Your task to perform on an android device: open app "Google Home" (install if not already installed) Image 0: 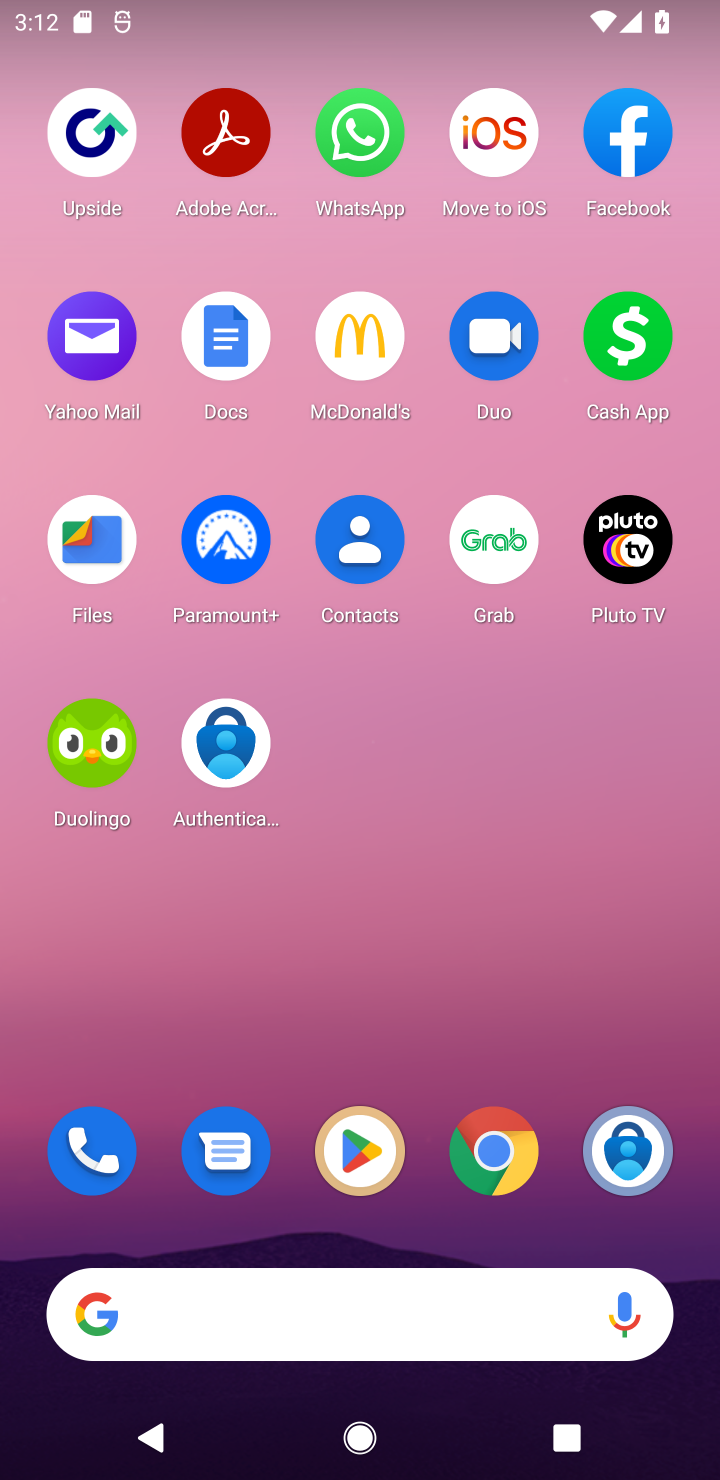
Step 0: click (363, 1164)
Your task to perform on an android device: open app "Google Home" (install if not already installed) Image 1: 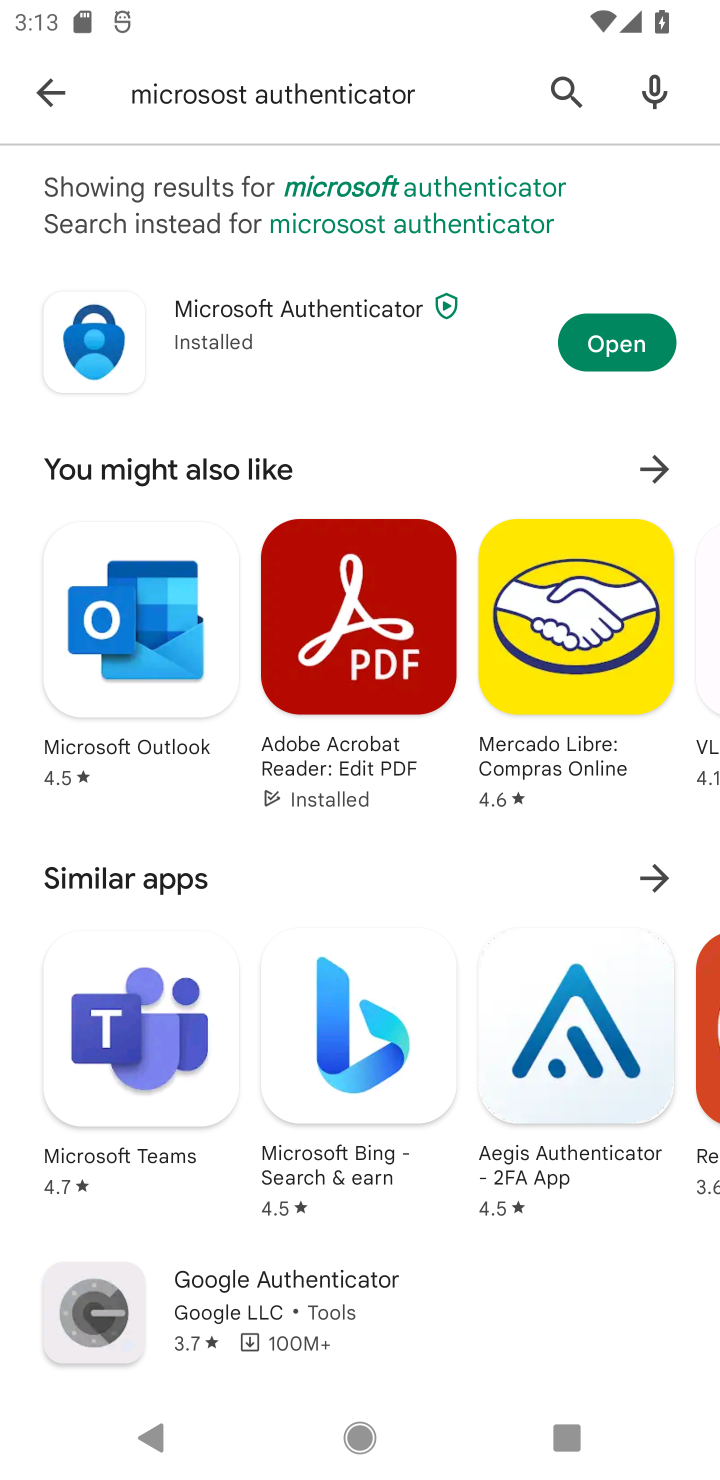
Step 1: click (565, 96)
Your task to perform on an android device: open app "Google Home" (install if not already installed) Image 2: 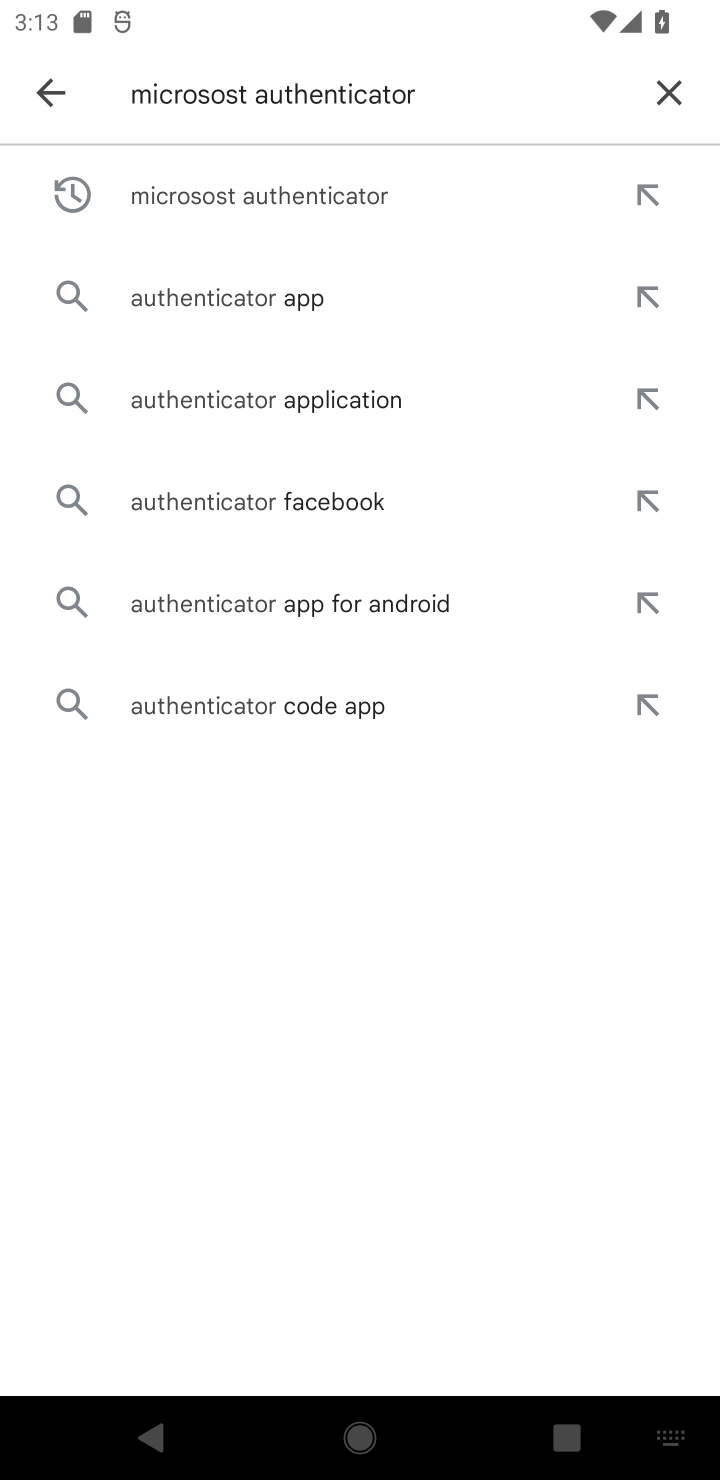
Step 2: click (651, 83)
Your task to perform on an android device: open app "Google Home" (install if not already installed) Image 3: 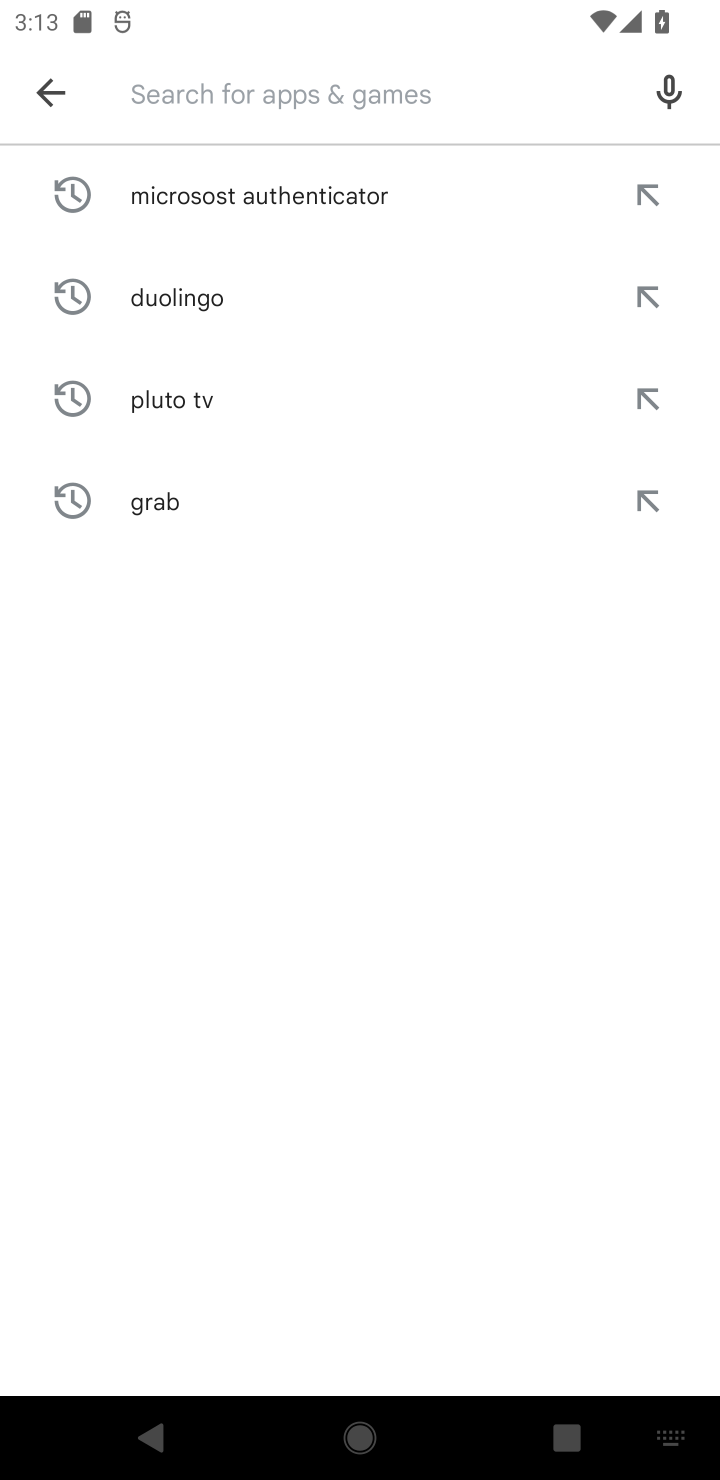
Step 3: type "google home"
Your task to perform on an android device: open app "Google Home" (install if not already installed) Image 4: 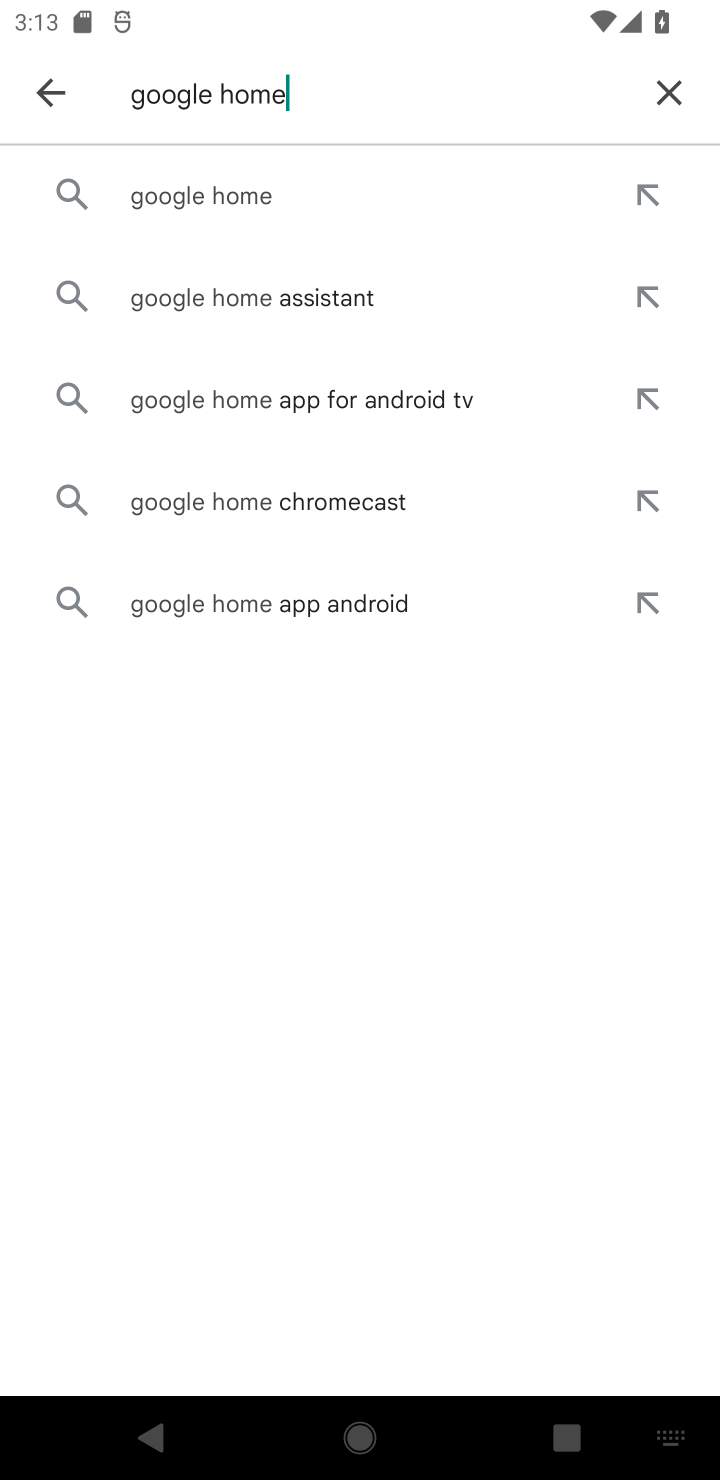
Step 4: click (301, 170)
Your task to perform on an android device: open app "Google Home" (install if not already installed) Image 5: 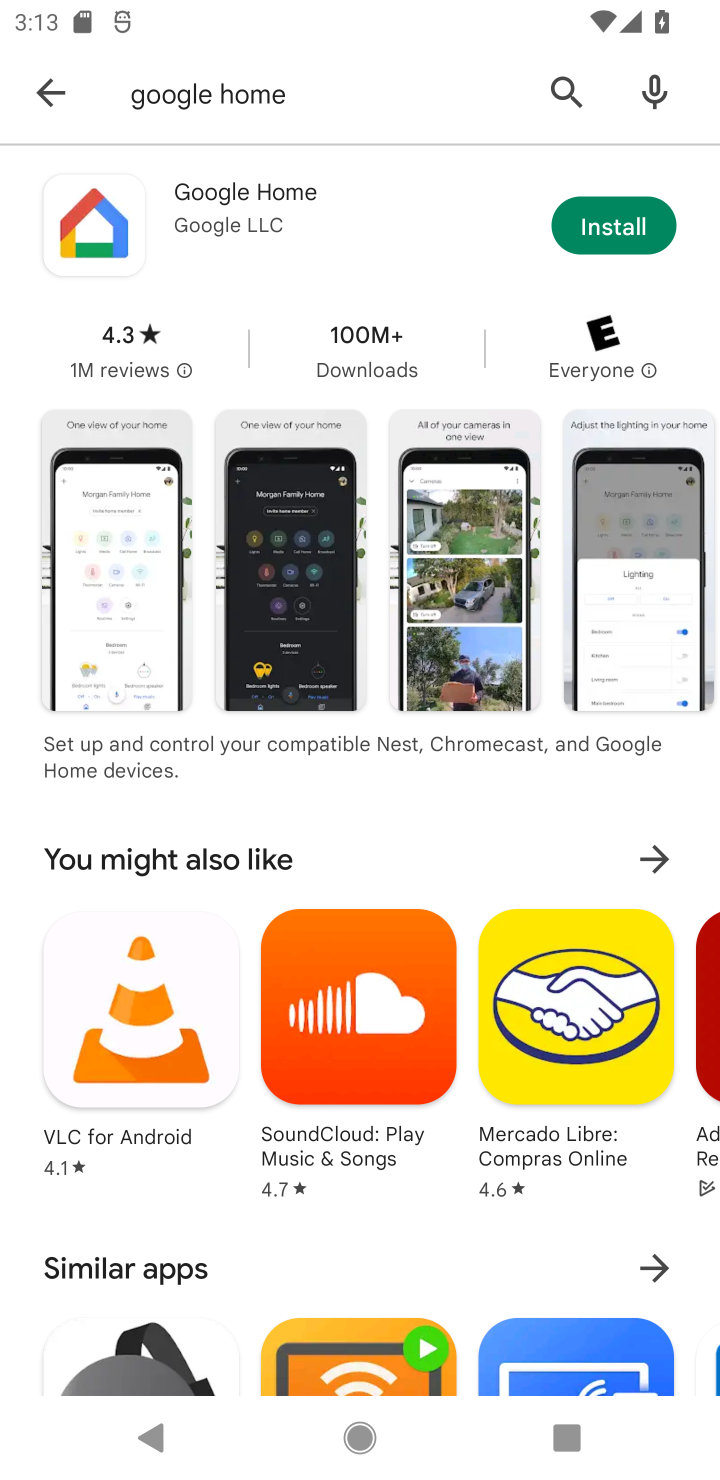
Step 5: click (572, 226)
Your task to perform on an android device: open app "Google Home" (install if not already installed) Image 6: 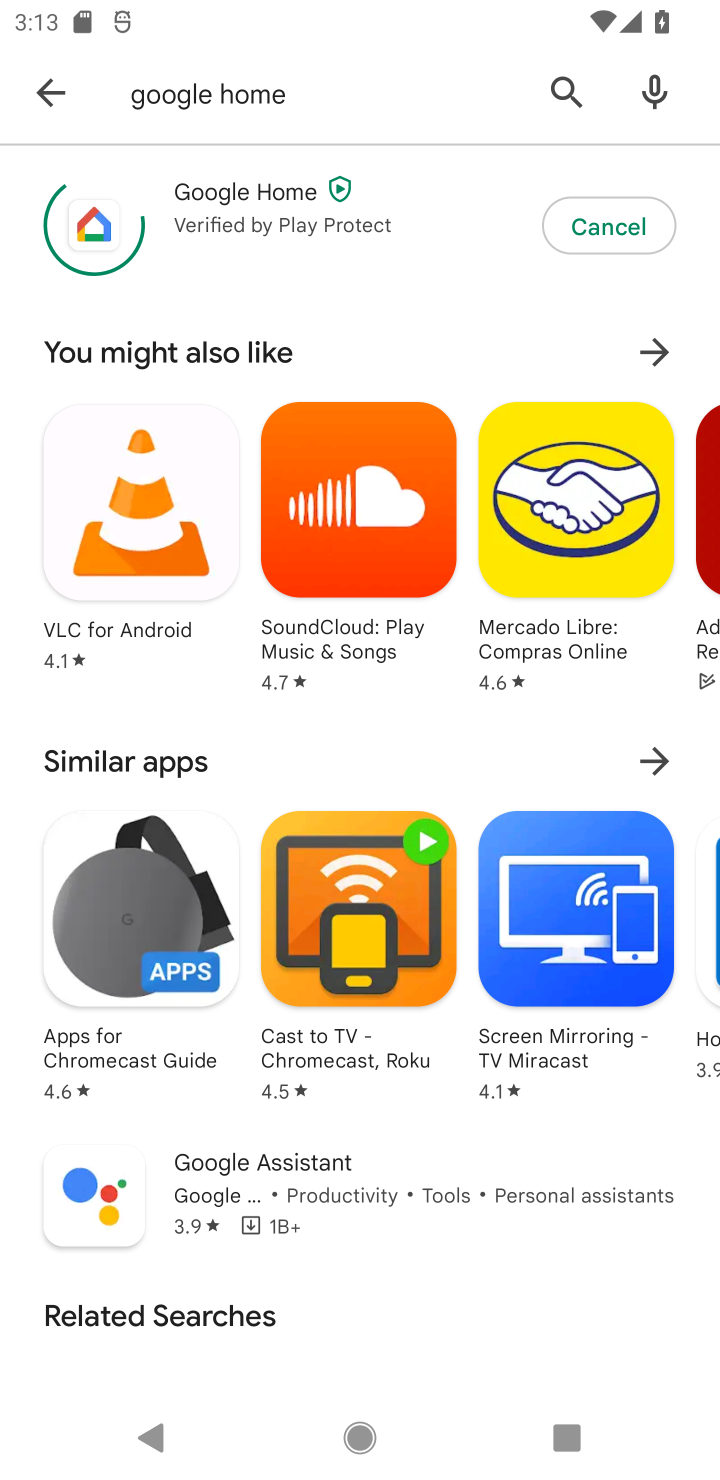
Step 6: task complete